Your task to perform on an android device: turn on priority inbox in the gmail app Image 0: 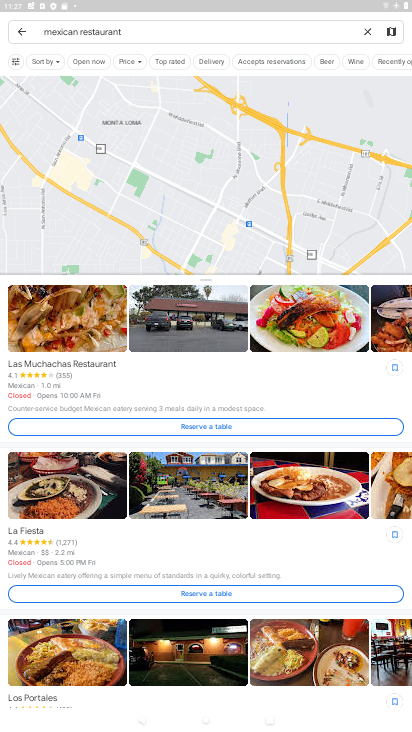
Step 0: press home button
Your task to perform on an android device: turn on priority inbox in the gmail app Image 1: 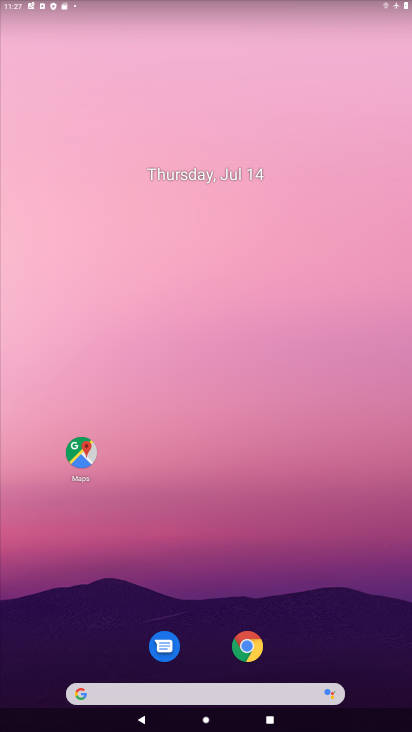
Step 1: drag from (197, 623) to (207, 187)
Your task to perform on an android device: turn on priority inbox in the gmail app Image 2: 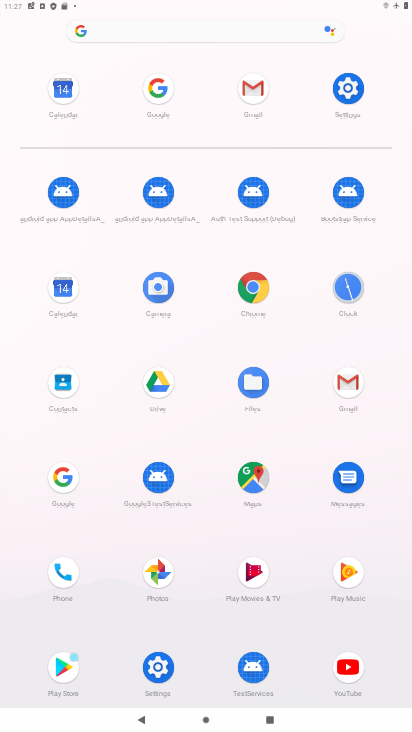
Step 2: click (268, 100)
Your task to perform on an android device: turn on priority inbox in the gmail app Image 3: 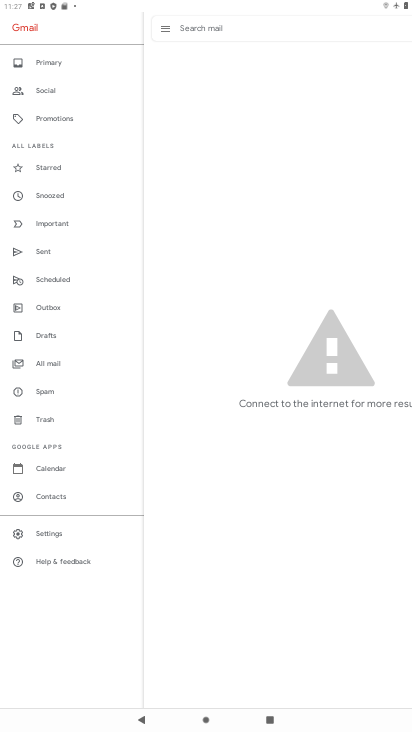
Step 3: click (54, 540)
Your task to perform on an android device: turn on priority inbox in the gmail app Image 4: 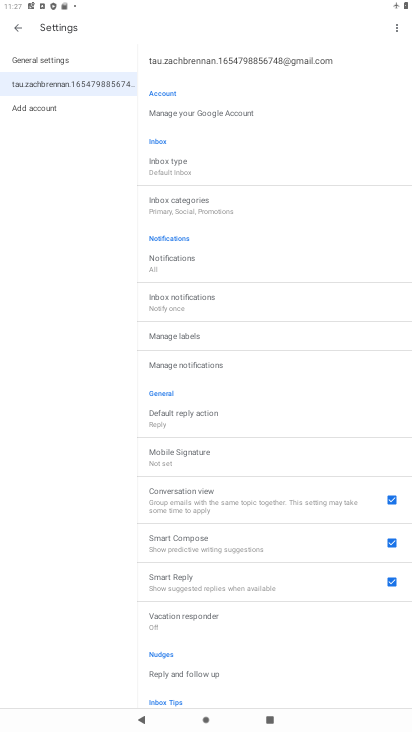
Step 4: click (181, 168)
Your task to perform on an android device: turn on priority inbox in the gmail app Image 5: 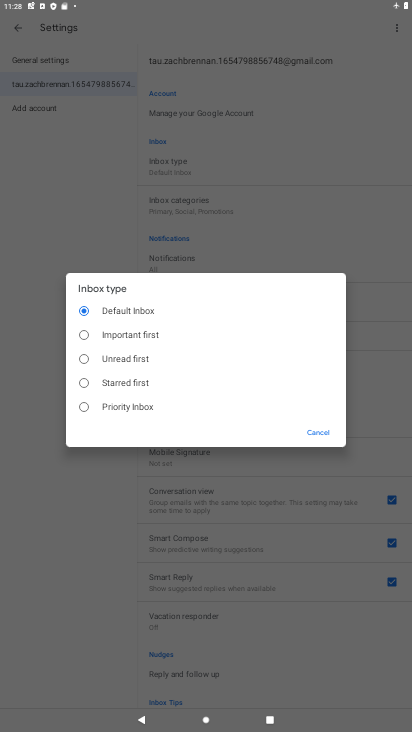
Step 5: click (118, 413)
Your task to perform on an android device: turn on priority inbox in the gmail app Image 6: 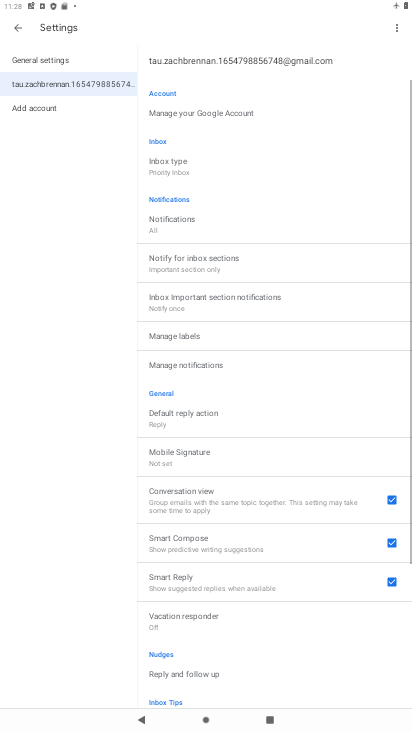
Step 6: task complete